Your task to perform on an android device: turn on improve location accuracy Image 0: 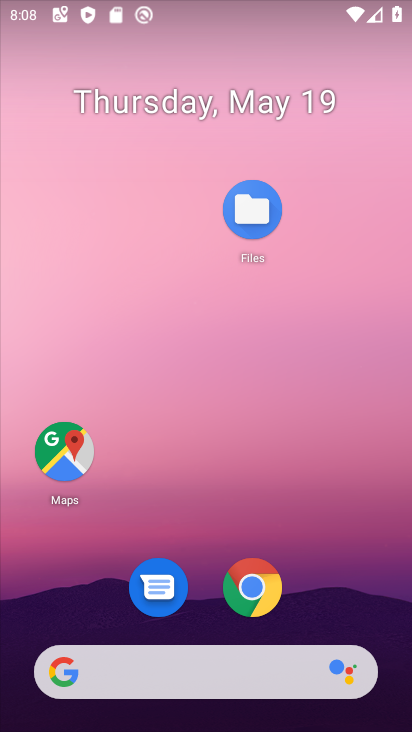
Step 0: drag from (307, 651) to (166, 8)
Your task to perform on an android device: turn on improve location accuracy Image 1: 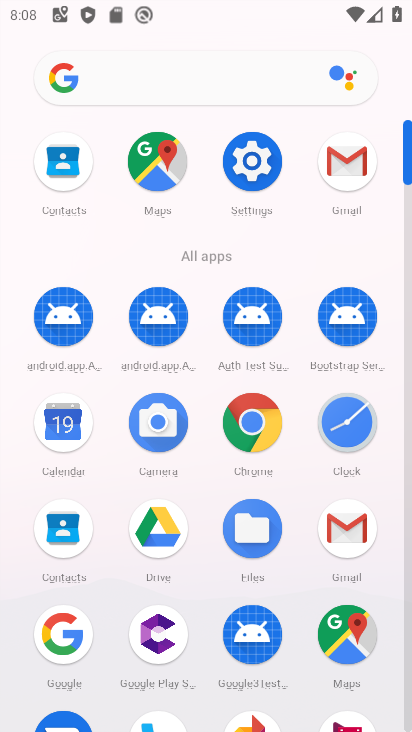
Step 1: click (260, 425)
Your task to perform on an android device: turn on improve location accuracy Image 2: 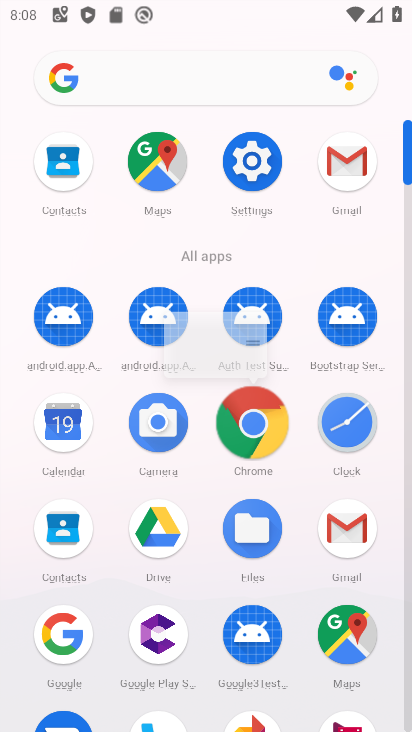
Step 2: click (260, 425)
Your task to perform on an android device: turn on improve location accuracy Image 3: 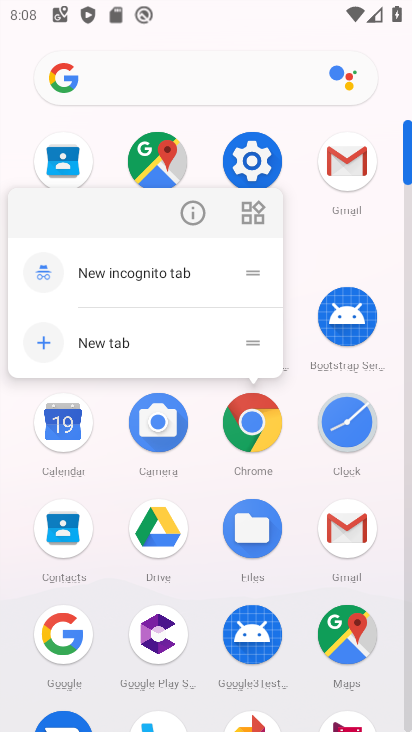
Step 3: click (260, 425)
Your task to perform on an android device: turn on improve location accuracy Image 4: 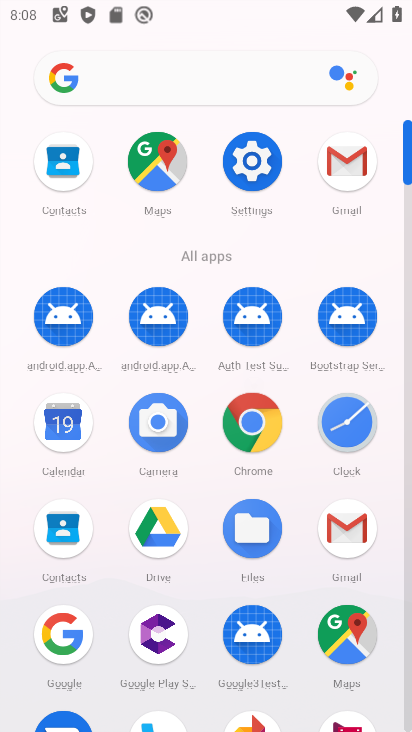
Step 4: click (251, 414)
Your task to perform on an android device: turn on improve location accuracy Image 5: 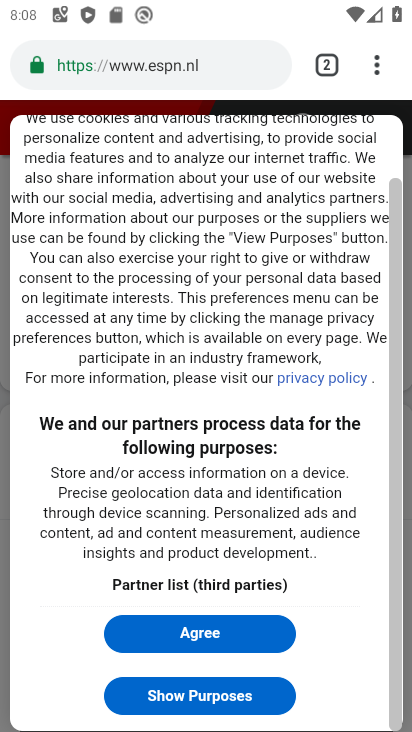
Step 5: press back button
Your task to perform on an android device: turn on improve location accuracy Image 6: 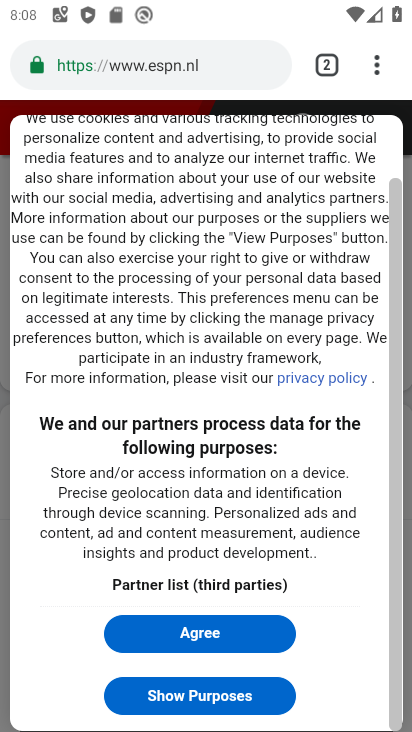
Step 6: press back button
Your task to perform on an android device: turn on improve location accuracy Image 7: 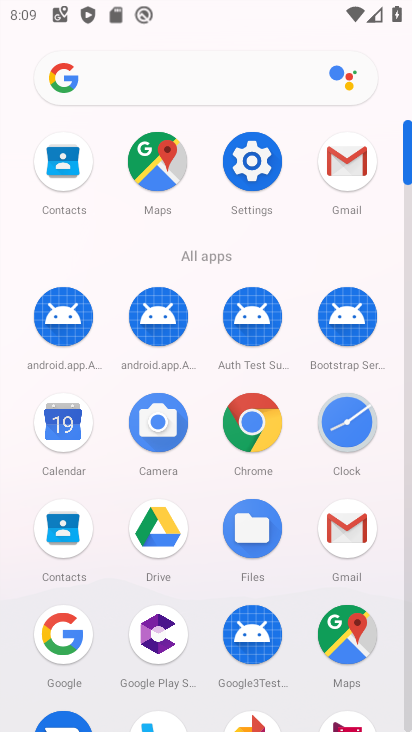
Step 7: click (247, 433)
Your task to perform on an android device: turn on improve location accuracy Image 8: 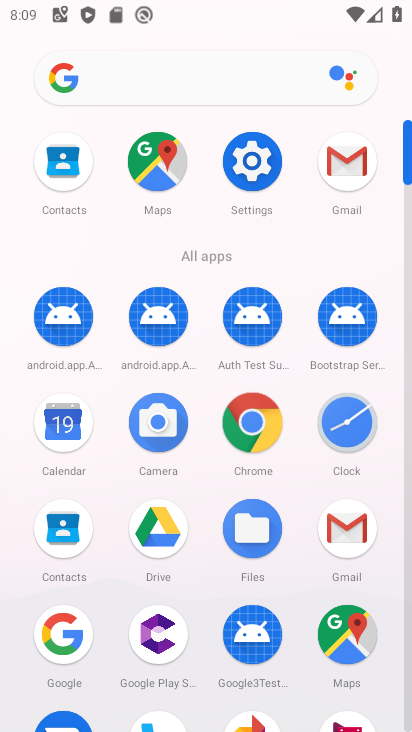
Step 8: click (247, 433)
Your task to perform on an android device: turn on improve location accuracy Image 9: 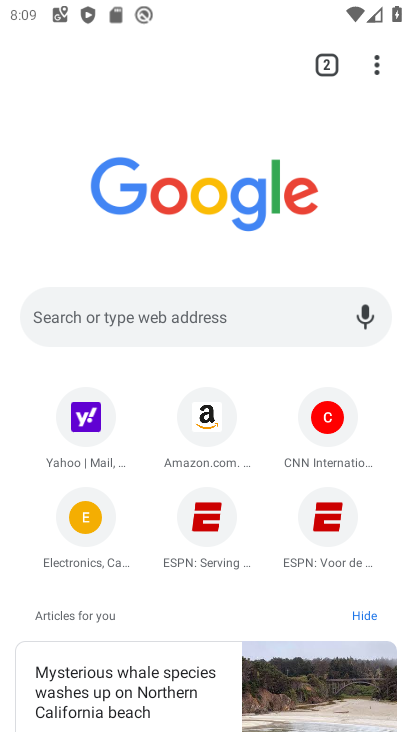
Step 9: drag from (371, 60) to (132, 553)
Your task to perform on an android device: turn on improve location accuracy Image 10: 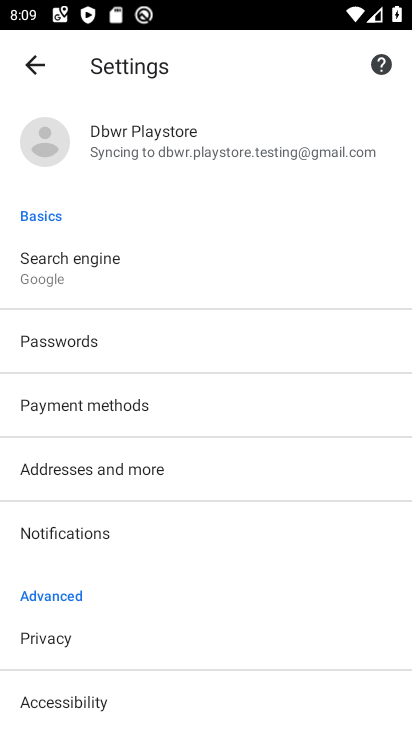
Step 10: drag from (165, 509) to (77, 0)
Your task to perform on an android device: turn on improve location accuracy Image 11: 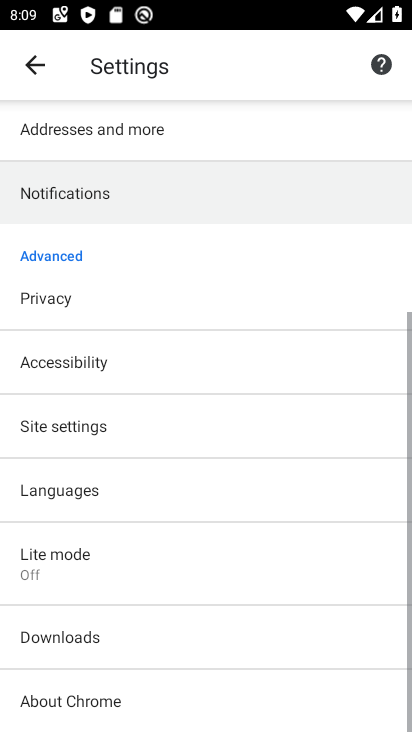
Step 11: drag from (167, 365) to (142, 171)
Your task to perform on an android device: turn on improve location accuracy Image 12: 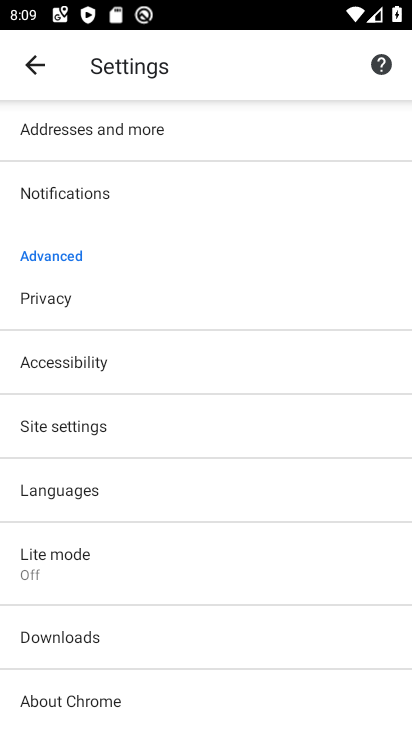
Step 12: click (140, 203)
Your task to perform on an android device: turn on improve location accuracy Image 13: 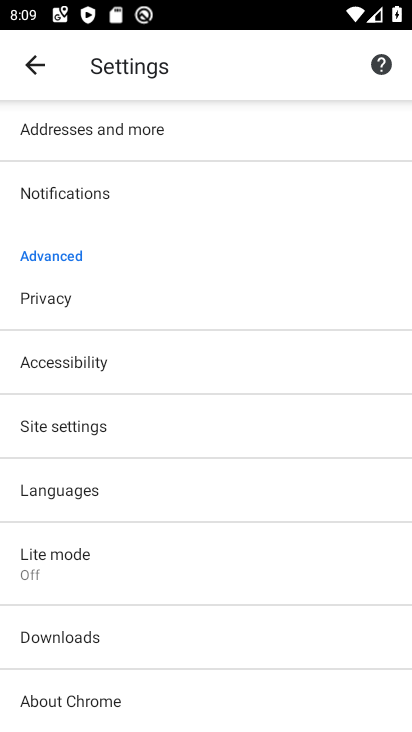
Step 13: drag from (115, 380) to (132, 195)
Your task to perform on an android device: turn on improve location accuracy Image 14: 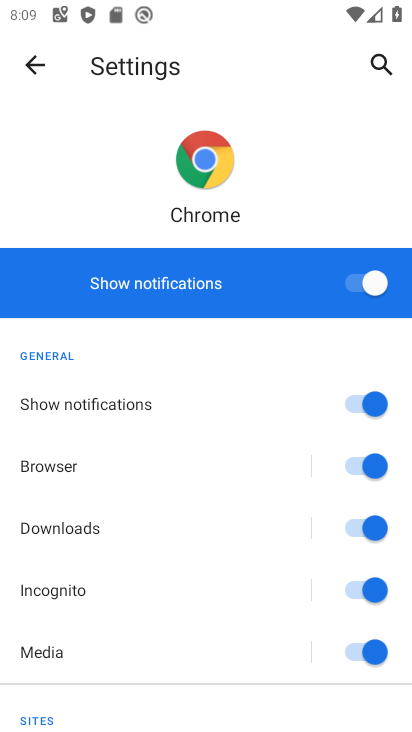
Step 14: click (33, 71)
Your task to perform on an android device: turn on improve location accuracy Image 15: 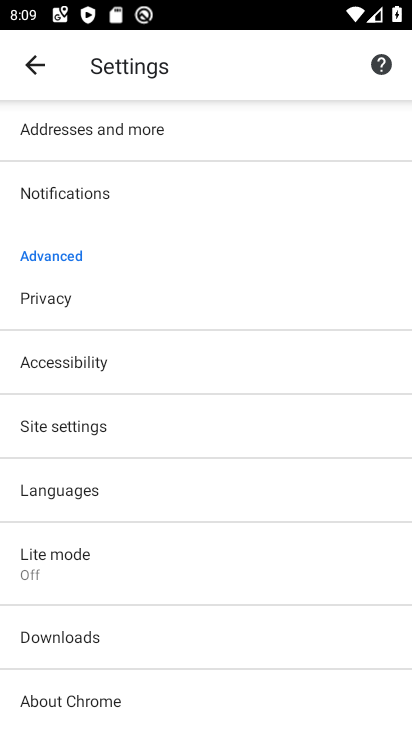
Step 15: drag from (42, 208) to (138, 222)
Your task to perform on an android device: turn on improve location accuracy Image 16: 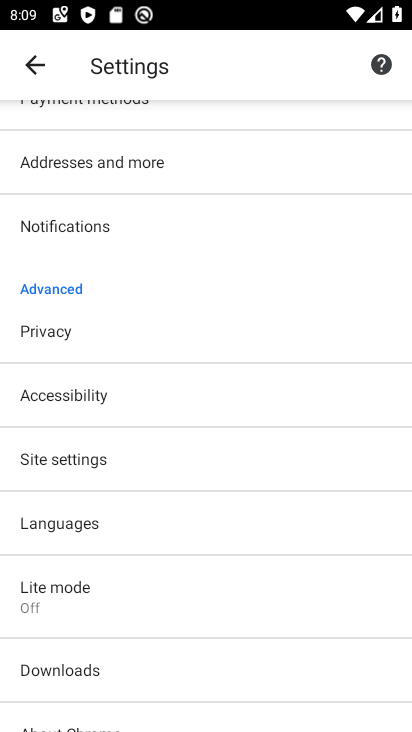
Step 16: click (28, 66)
Your task to perform on an android device: turn on improve location accuracy Image 17: 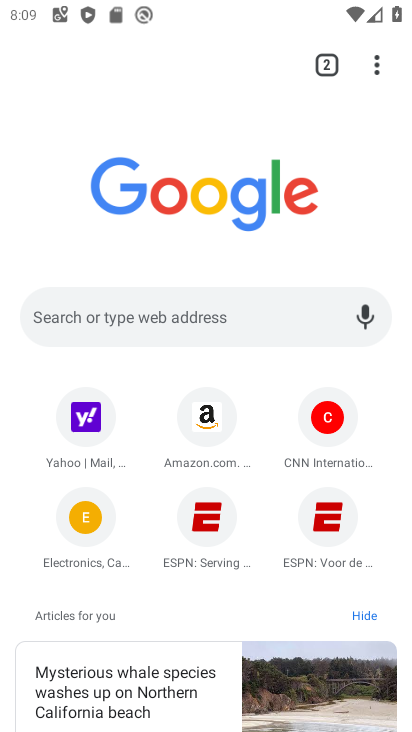
Step 17: click (372, 58)
Your task to perform on an android device: turn on improve location accuracy Image 18: 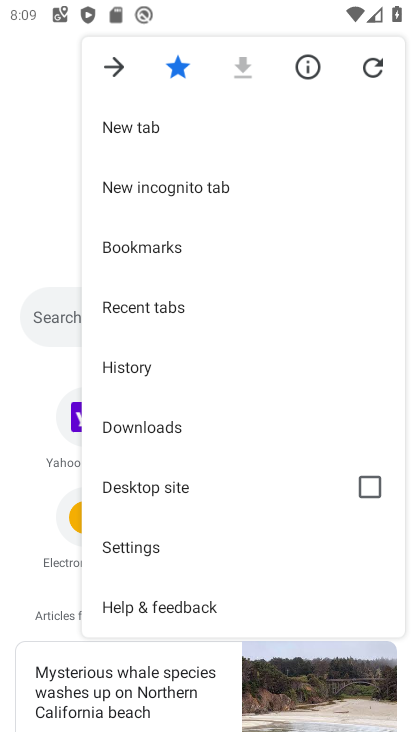
Step 18: click (129, 540)
Your task to perform on an android device: turn on improve location accuracy Image 19: 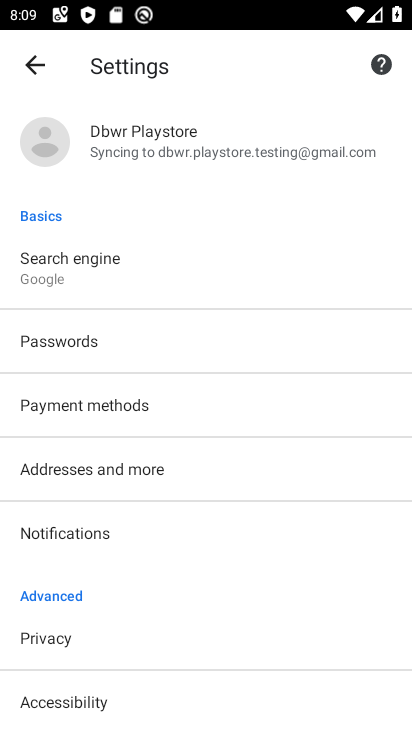
Step 19: click (30, 69)
Your task to perform on an android device: turn on improve location accuracy Image 20: 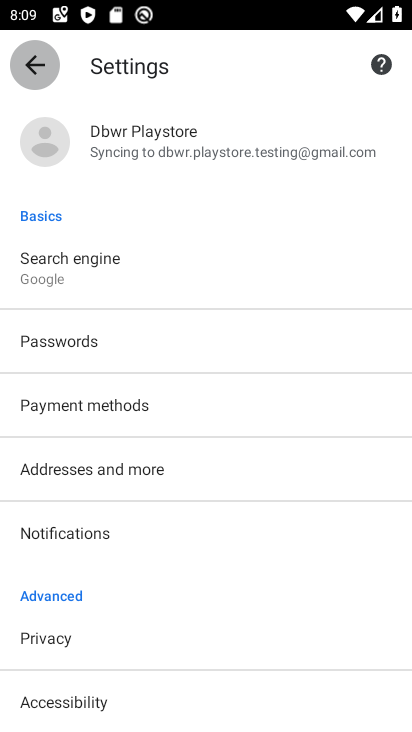
Step 20: click (31, 68)
Your task to perform on an android device: turn on improve location accuracy Image 21: 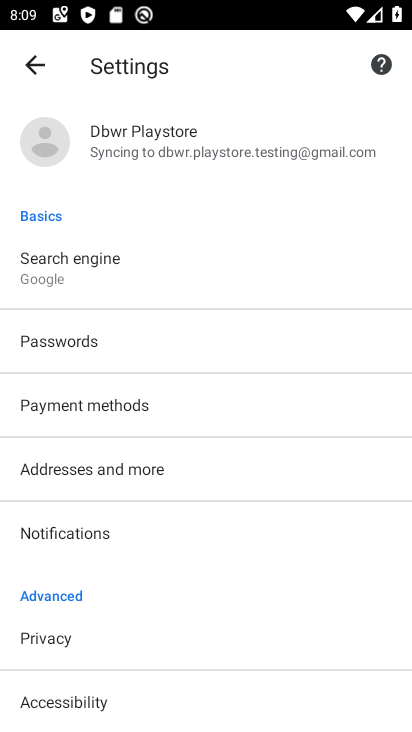
Step 21: click (31, 68)
Your task to perform on an android device: turn on improve location accuracy Image 22: 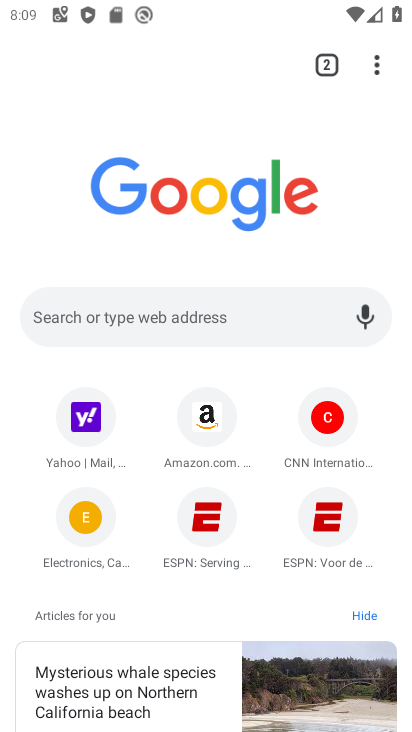
Step 22: press back button
Your task to perform on an android device: turn on improve location accuracy Image 23: 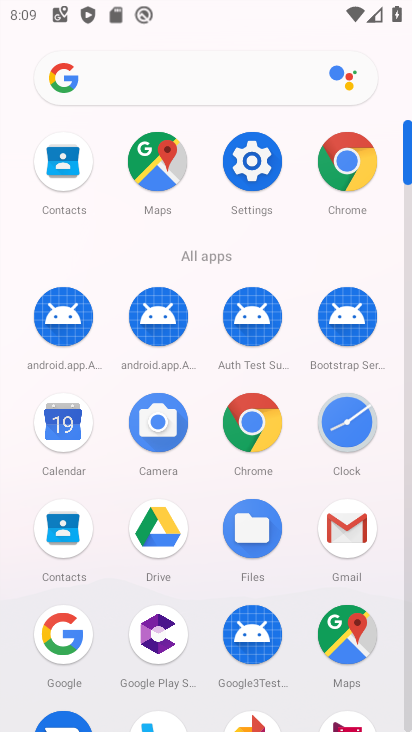
Step 23: click (253, 173)
Your task to perform on an android device: turn on improve location accuracy Image 24: 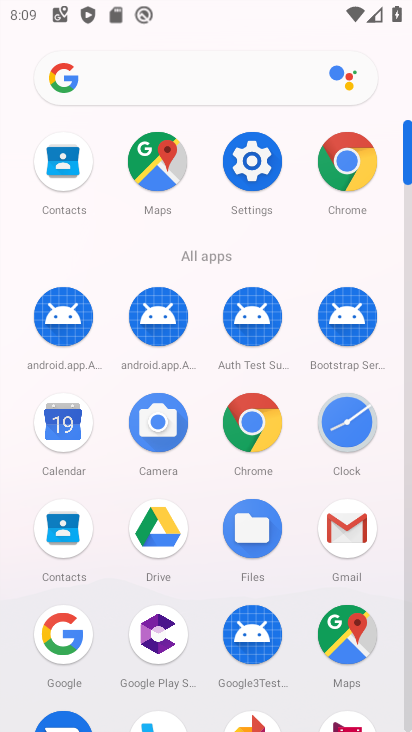
Step 24: click (253, 173)
Your task to perform on an android device: turn on improve location accuracy Image 25: 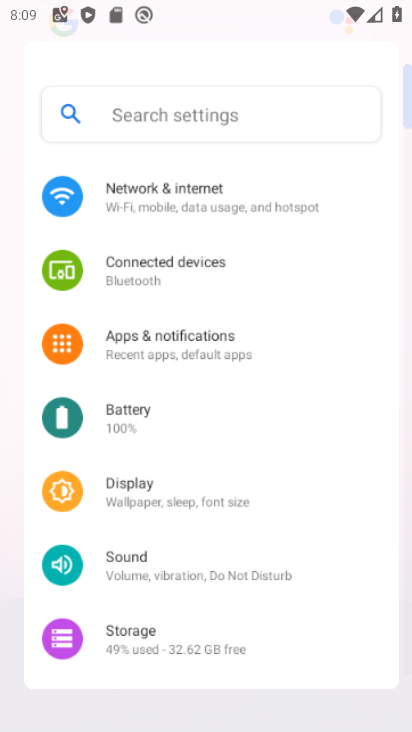
Step 25: click (253, 173)
Your task to perform on an android device: turn on improve location accuracy Image 26: 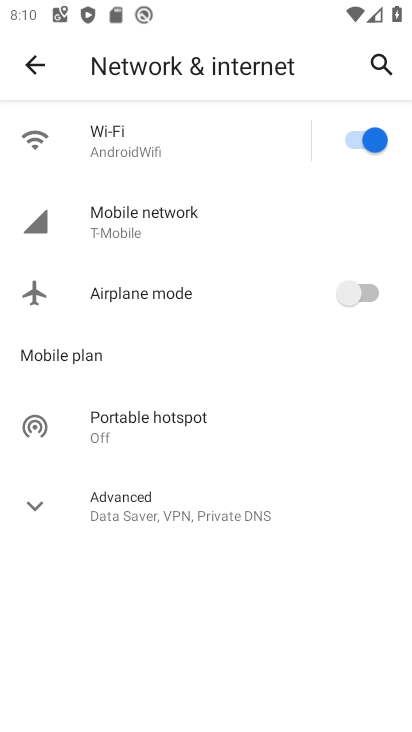
Step 26: click (27, 58)
Your task to perform on an android device: turn on improve location accuracy Image 27: 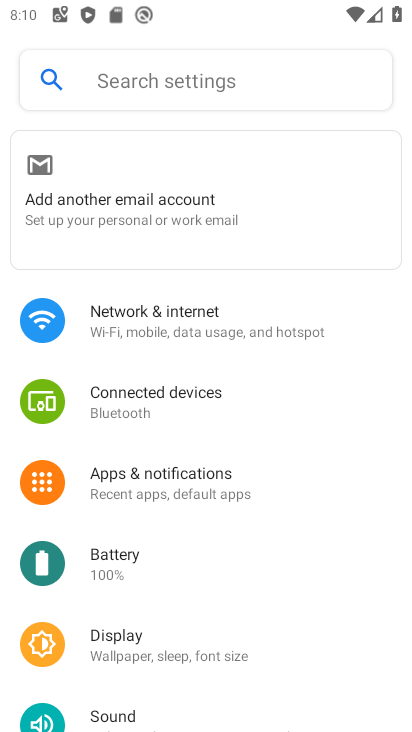
Step 27: drag from (184, 603) to (85, 152)
Your task to perform on an android device: turn on improve location accuracy Image 28: 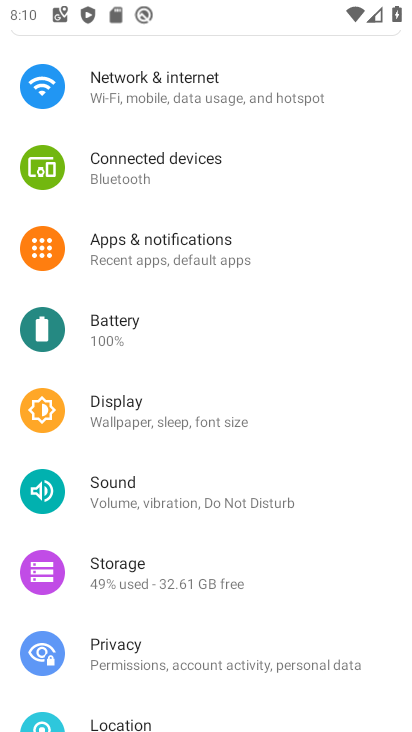
Step 28: drag from (129, 504) to (187, 221)
Your task to perform on an android device: turn on improve location accuracy Image 29: 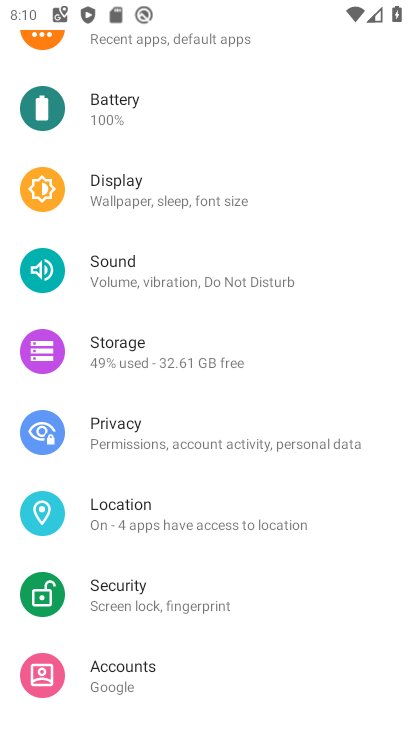
Step 29: click (151, 513)
Your task to perform on an android device: turn on improve location accuracy Image 30: 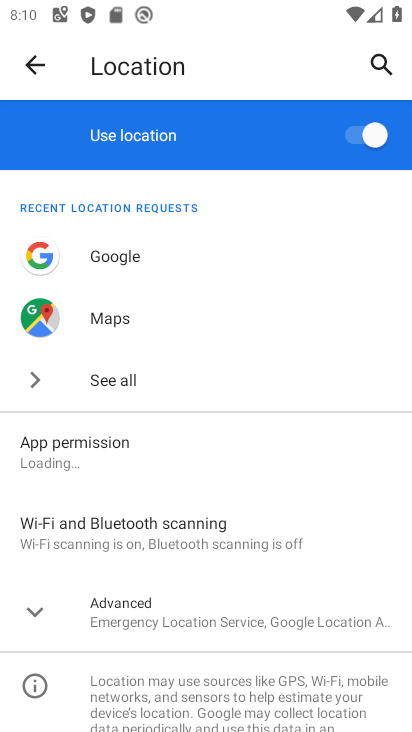
Step 30: click (132, 607)
Your task to perform on an android device: turn on improve location accuracy Image 31: 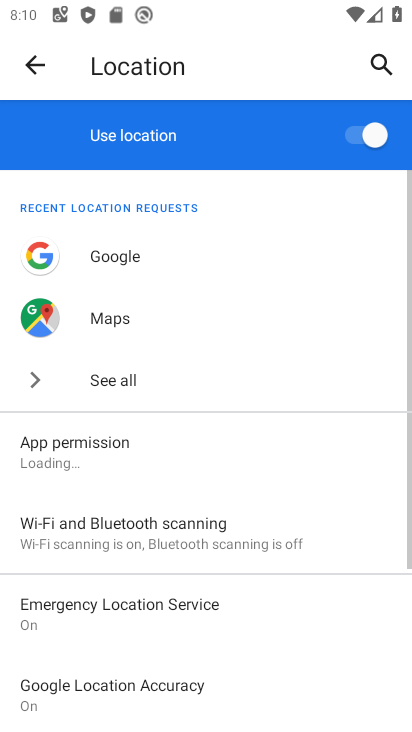
Step 31: drag from (184, 607) to (186, 325)
Your task to perform on an android device: turn on improve location accuracy Image 32: 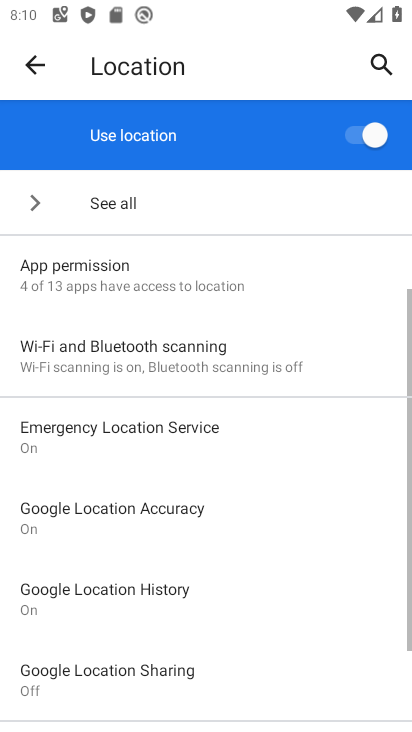
Step 32: drag from (180, 508) to (205, 243)
Your task to perform on an android device: turn on improve location accuracy Image 33: 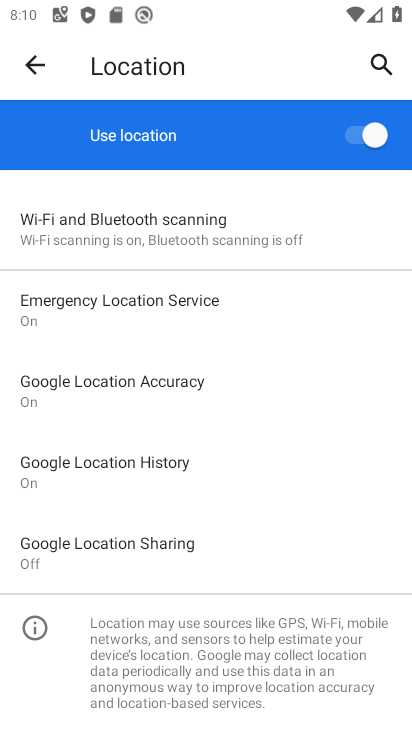
Step 33: click (66, 386)
Your task to perform on an android device: turn on improve location accuracy Image 34: 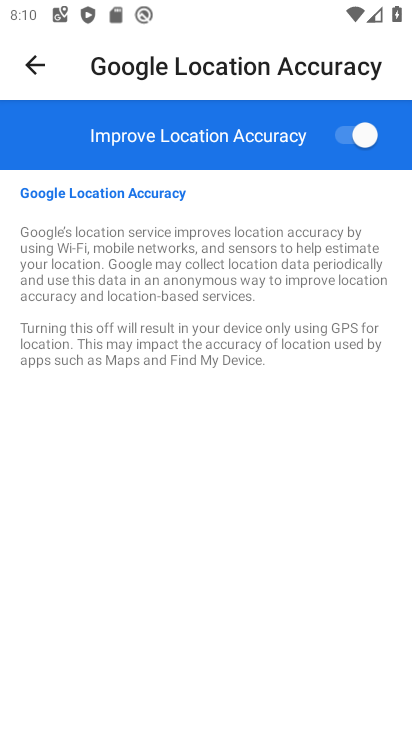
Step 34: task complete